Your task to perform on an android device: toggle airplane mode Image 0: 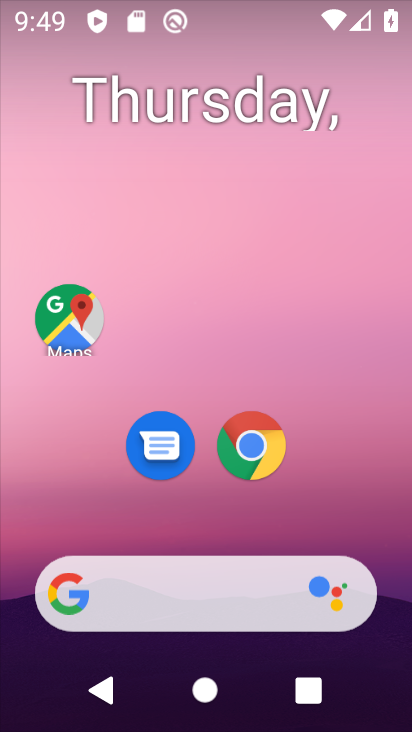
Step 0: drag from (341, 324) to (350, 156)
Your task to perform on an android device: toggle airplane mode Image 1: 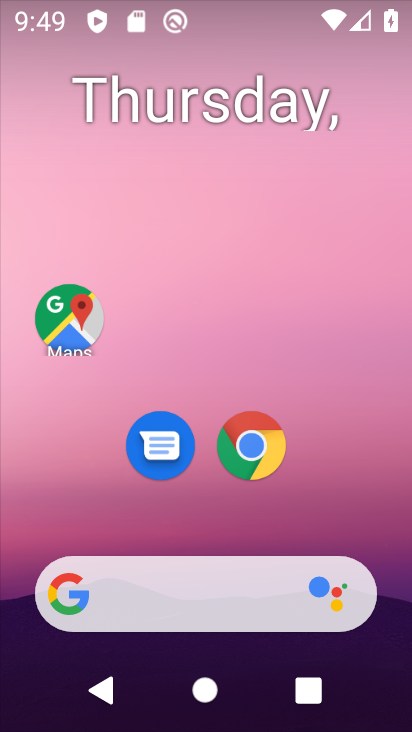
Step 1: drag from (340, 507) to (323, 72)
Your task to perform on an android device: toggle airplane mode Image 2: 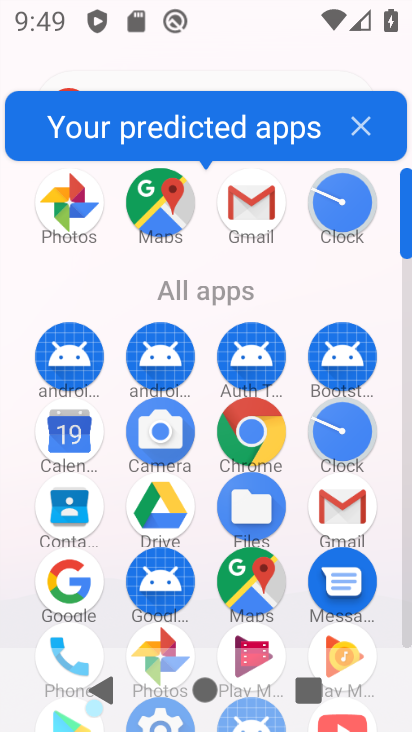
Step 2: drag from (292, 615) to (280, 289)
Your task to perform on an android device: toggle airplane mode Image 3: 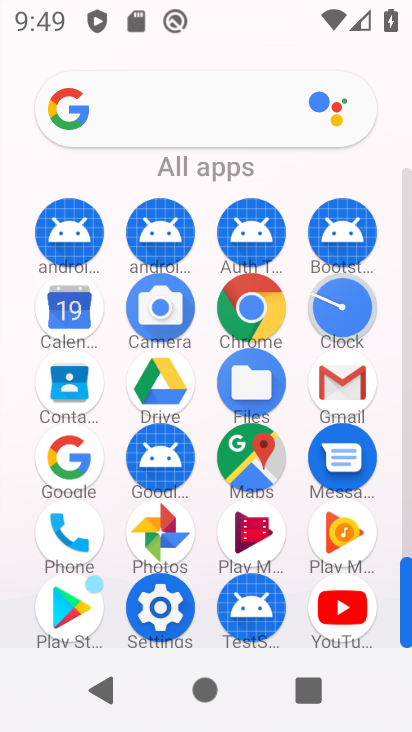
Step 3: click (171, 602)
Your task to perform on an android device: toggle airplane mode Image 4: 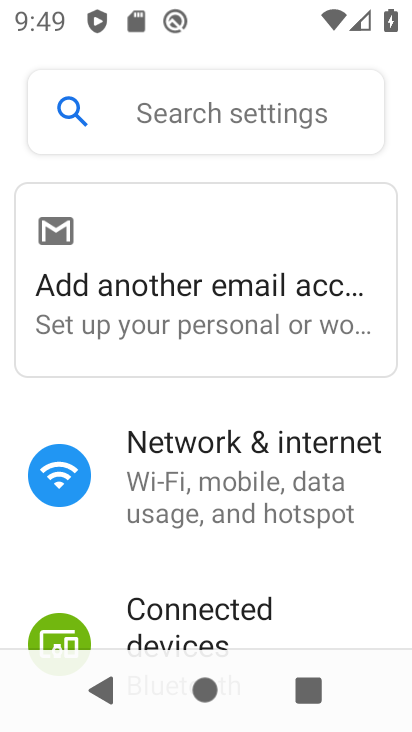
Step 4: drag from (306, 597) to (306, 245)
Your task to perform on an android device: toggle airplane mode Image 5: 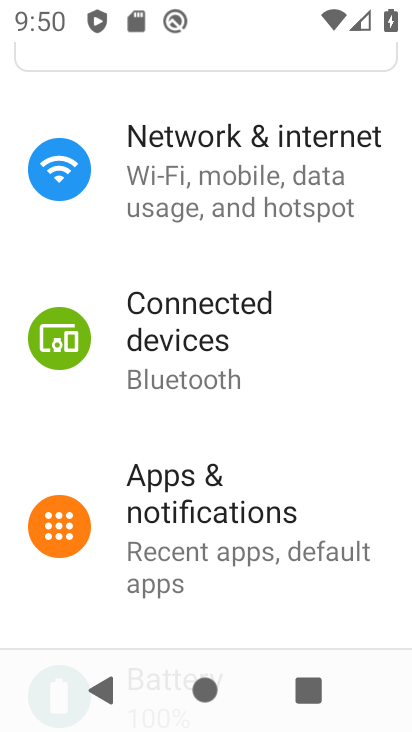
Step 5: click (279, 167)
Your task to perform on an android device: toggle airplane mode Image 6: 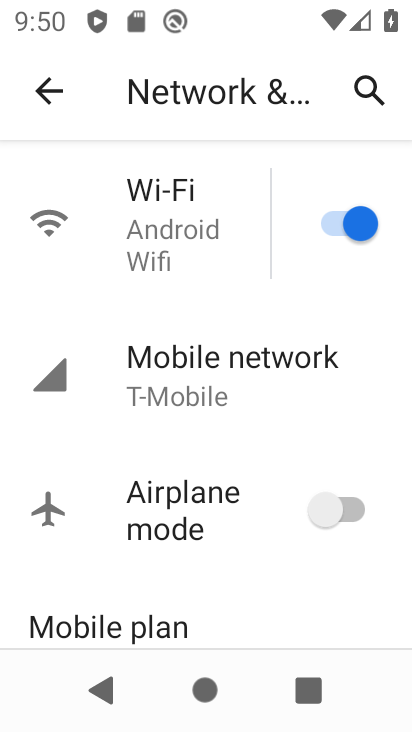
Step 6: click (347, 505)
Your task to perform on an android device: toggle airplane mode Image 7: 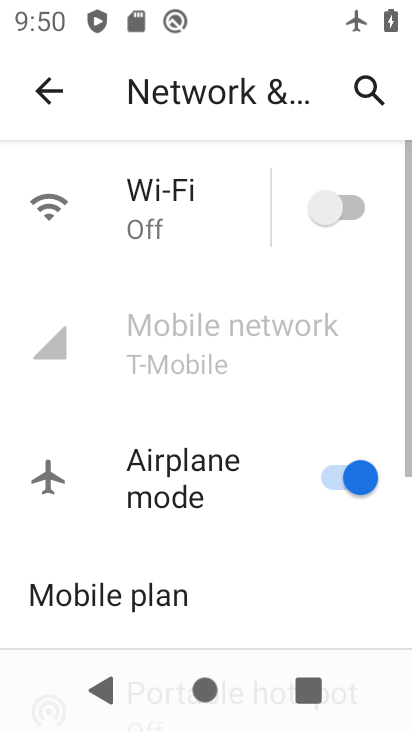
Step 7: task complete